Your task to perform on an android device: add a contact Image 0: 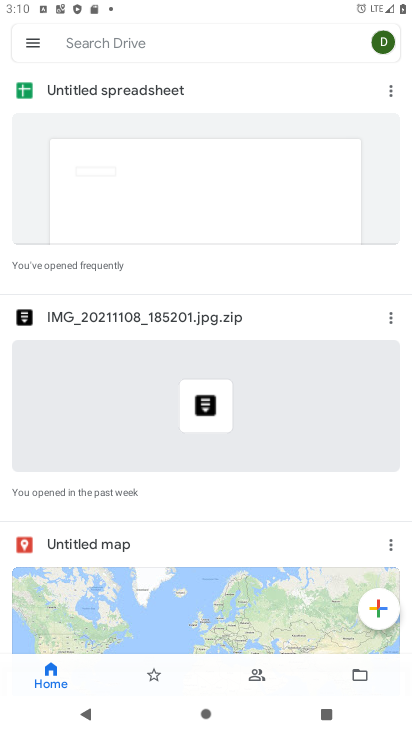
Step 0: press home button
Your task to perform on an android device: add a contact Image 1: 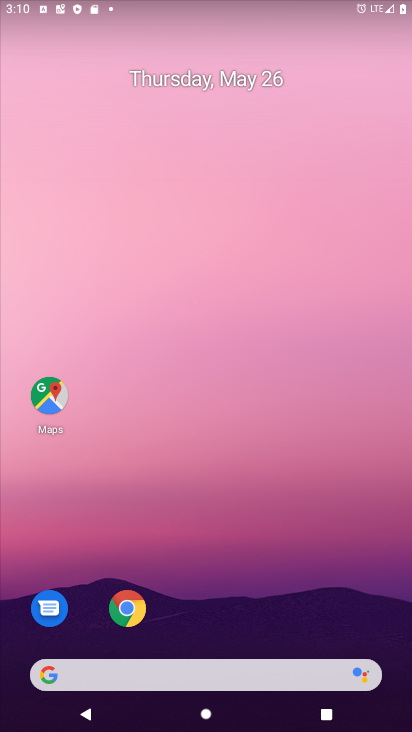
Step 1: drag from (306, 549) to (271, 139)
Your task to perform on an android device: add a contact Image 2: 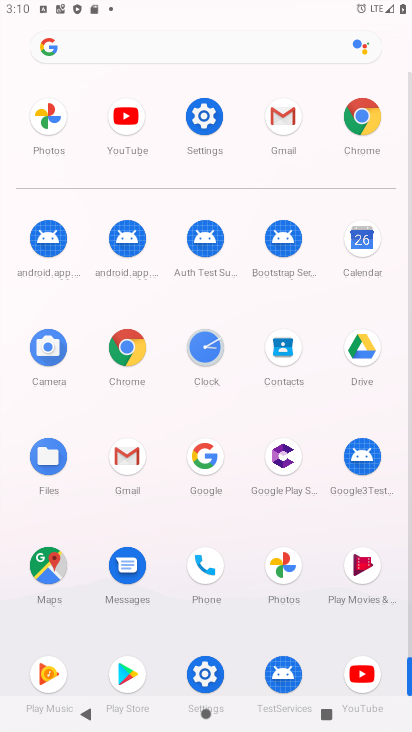
Step 2: click (280, 343)
Your task to perform on an android device: add a contact Image 3: 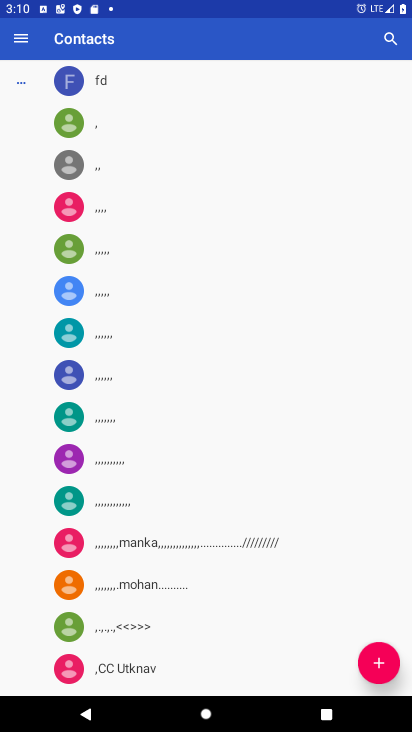
Step 3: click (375, 661)
Your task to perform on an android device: add a contact Image 4: 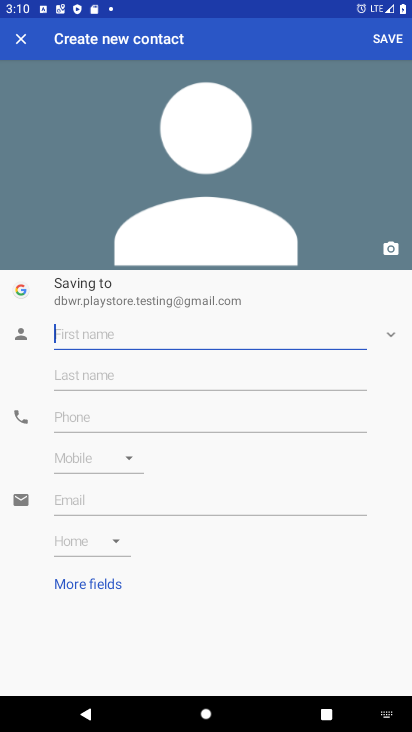
Step 4: type "mbhgfcvb"
Your task to perform on an android device: add a contact Image 5: 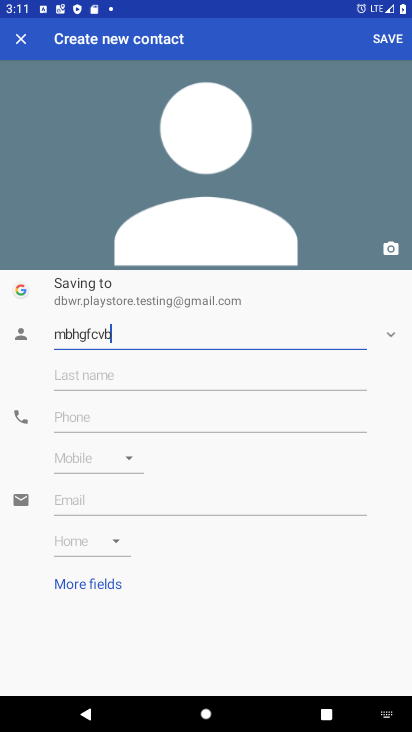
Step 5: click (70, 420)
Your task to perform on an android device: add a contact Image 6: 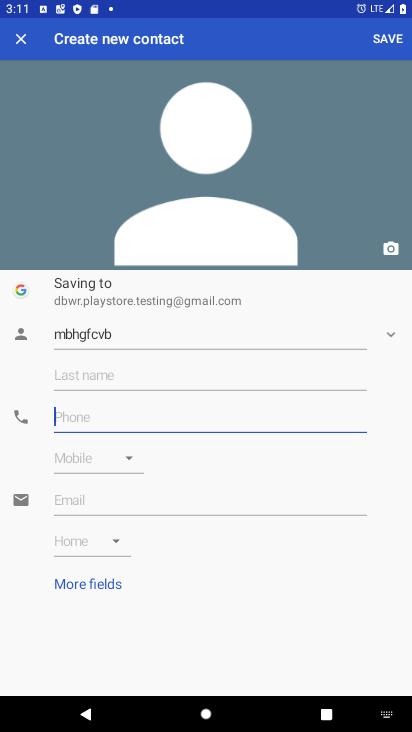
Step 6: type "78909765456"
Your task to perform on an android device: add a contact Image 7: 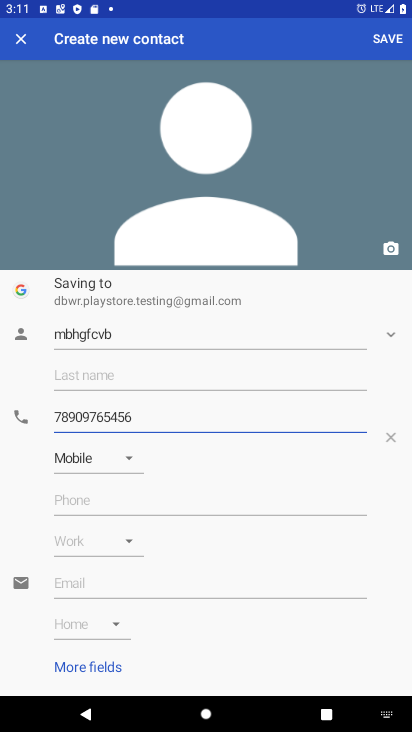
Step 7: click (128, 457)
Your task to perform on an android device: add a contact Image 8: 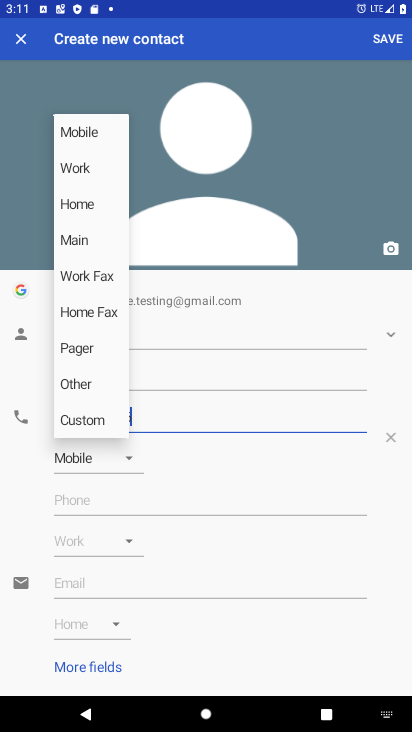
Step 8: click (92, 202)
Your task to perform on an android device: add a contact Image 9: 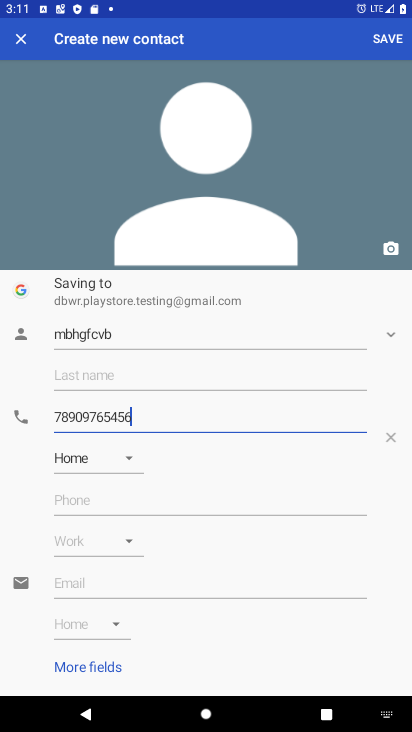
Step 9: click (387, 37)
Your task to perform on an android device: add a contact Image 10: 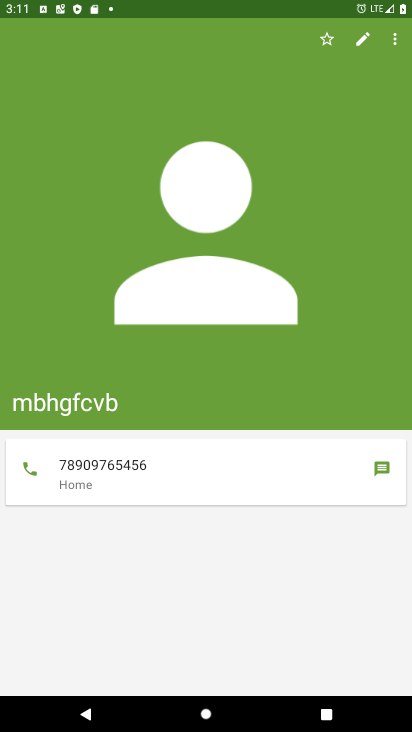
Step 10: task complete